Your task to perform on an android device: turn notification dots on Image 0: 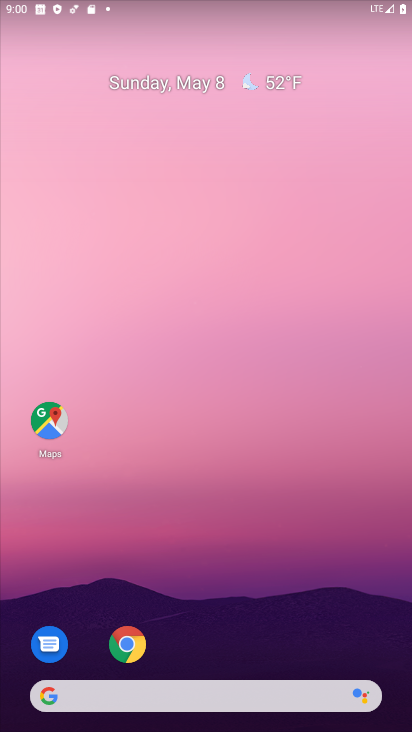
Step 0: drag from (179, 631) to (141, 173)
Your task to perform on an android device: turn notification dots on Image 1: 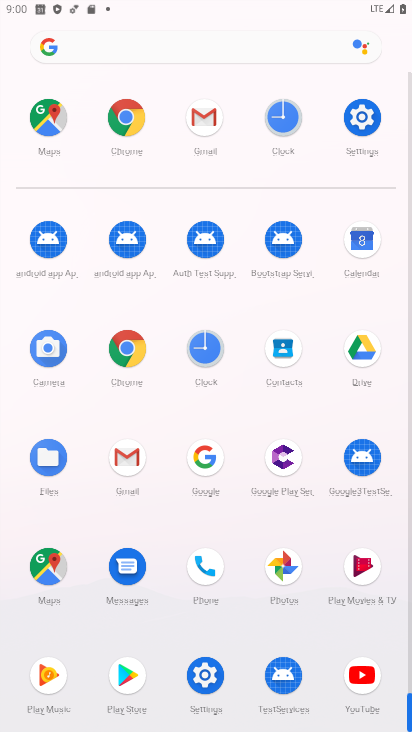
Step 1: drag from (248, 629) to (248, 305)
Your task to perform on an android device: turn notification dots on Image 2: 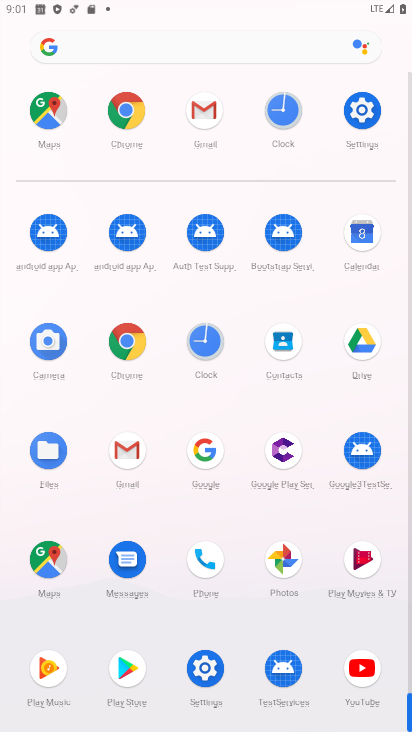
Step 2: click (204, 666)
Your task to perform on an android device: turn notification dots on Image 3: 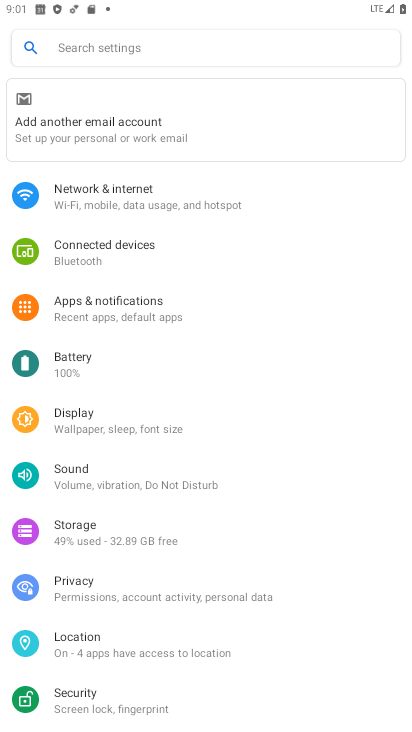
Step 3: click (134, 304)
Your task to perform on an android device: turn notification dots on Image 4: 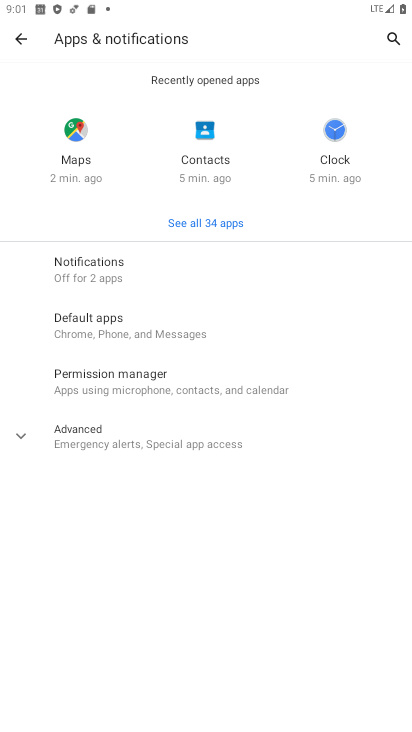
Step 4: click (149, 430)
Your task to perform on an android device: turn notification dots on Image 5: 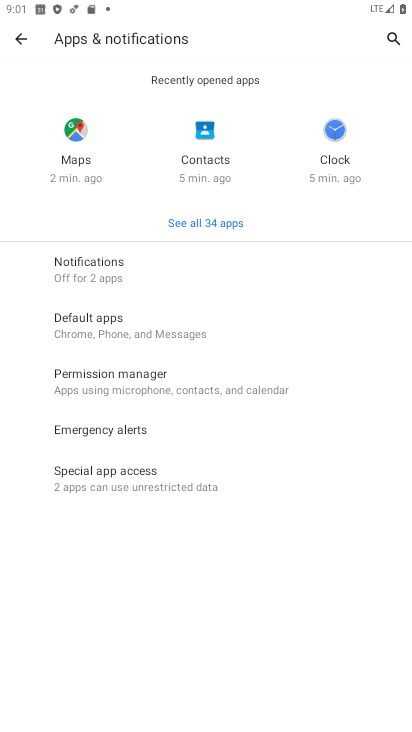
Step 5: click (135, 266)
Your task to perform on an android device: turn notification dots on Image 6: 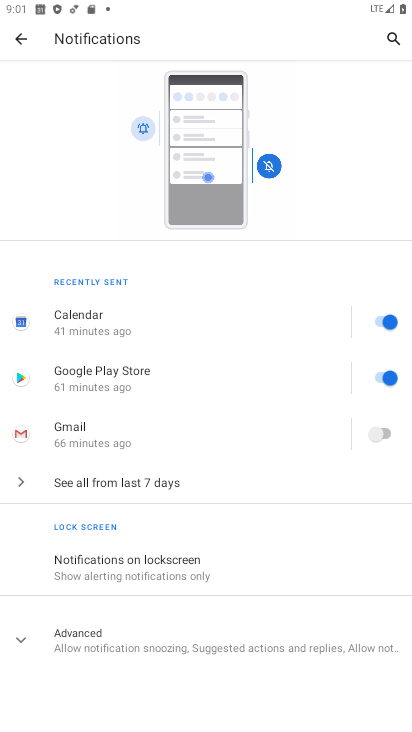
Step 6: drag from (303, 555) to (290, 163)
Your task to perform on an android device: turn notification dots on Image 7: 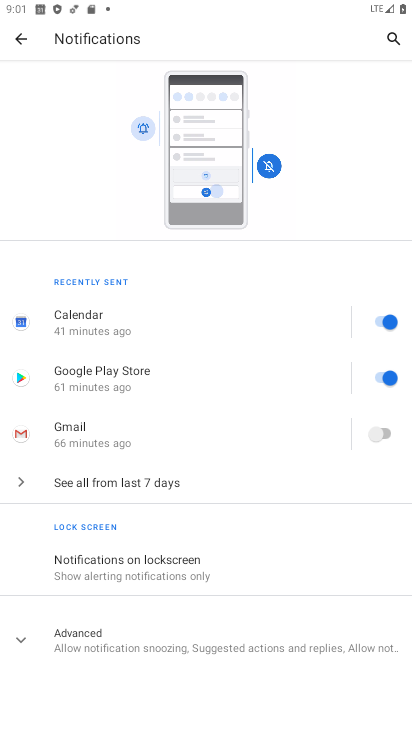
Step 7: click (191, 646)
Your task to perform on an android device: turn notification dots on Image 8: 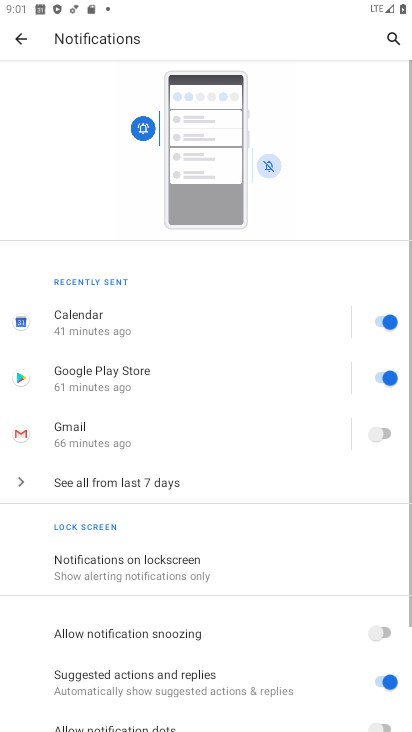
Step 8: drag from (208, 635) to (271, 226)
Your task to perform on an android device: turn notification dots on Image 9: 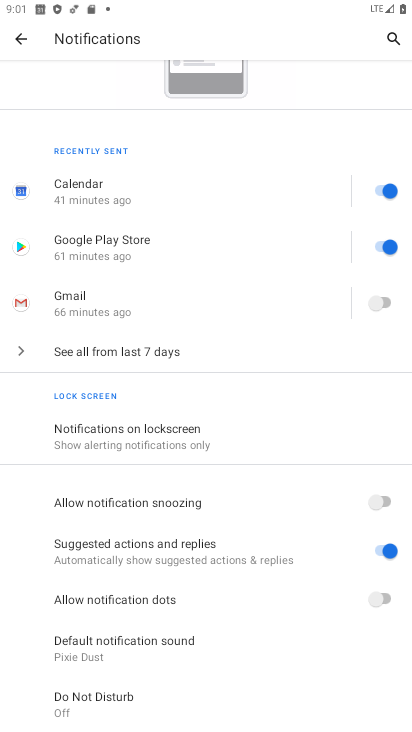
Step 9: click (378, 596)
Your task to perform on an android device: turn notification dots on Image 10: 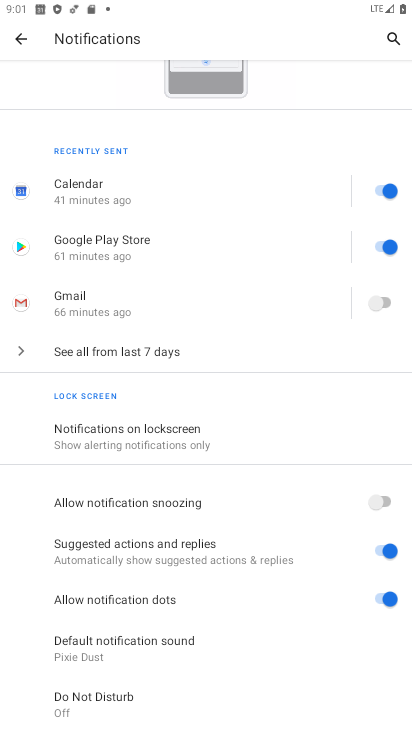
Step 10: task complete